Your task to perform on an android device: Open CNN.com Image 0: 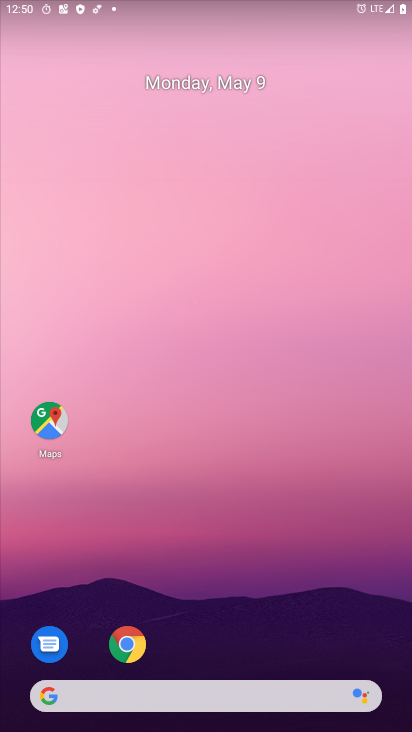
Step 0: drag from (244, 642) to (35, 65)
Your task to perform on an android device: Open CNN.com Image 1: 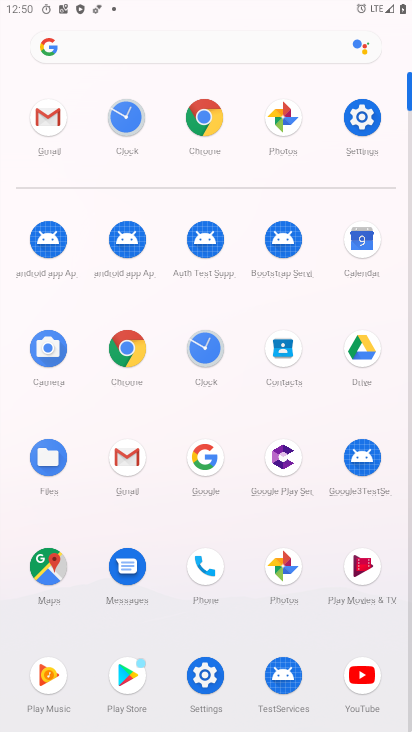
Step 1: click (130, 343)
Your task to perform on an android device: Open CNN.com Image 2: 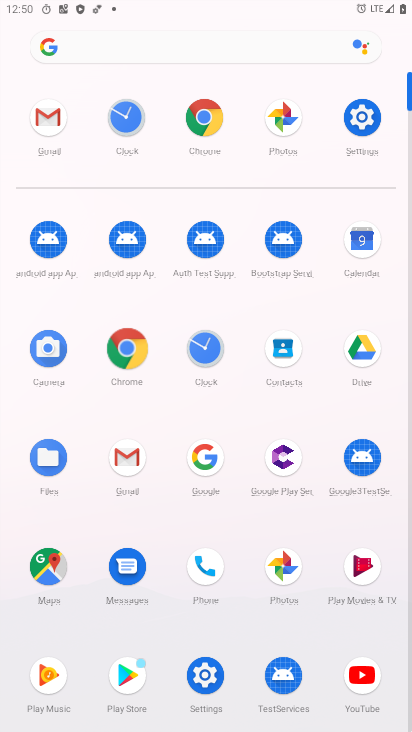
Step 2: click (127, 346)
Your task to perform on an android device: Open CNN.com Image 3: 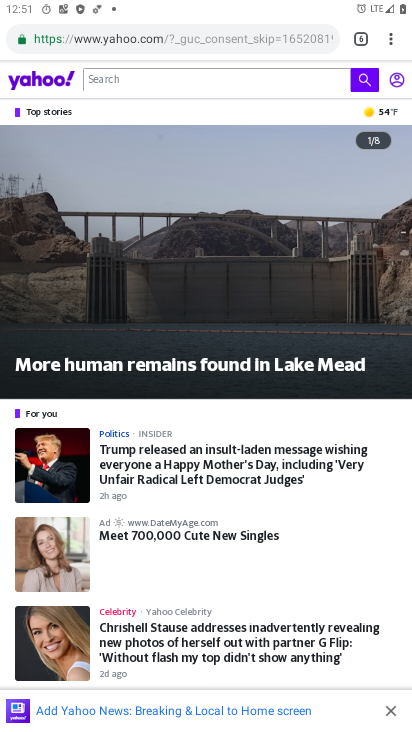
Step 3: drag from (388, 33) to (249, 77)
Your task to perform on an android device: Open CNN.com Image 4: 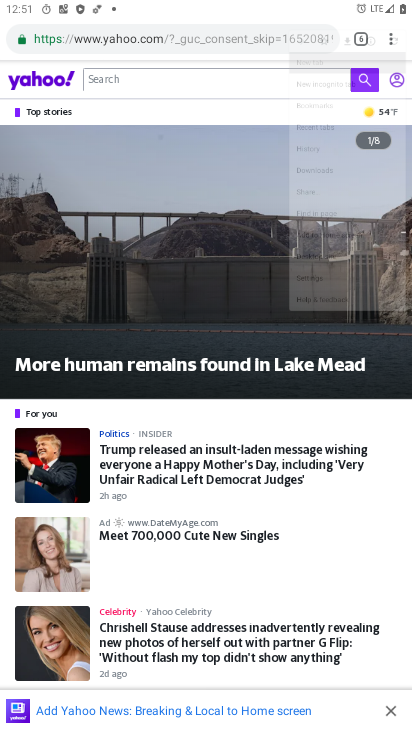
Step 4: click (250, 76)
Your task to perform on an android device: Open CNN.com Image 5: 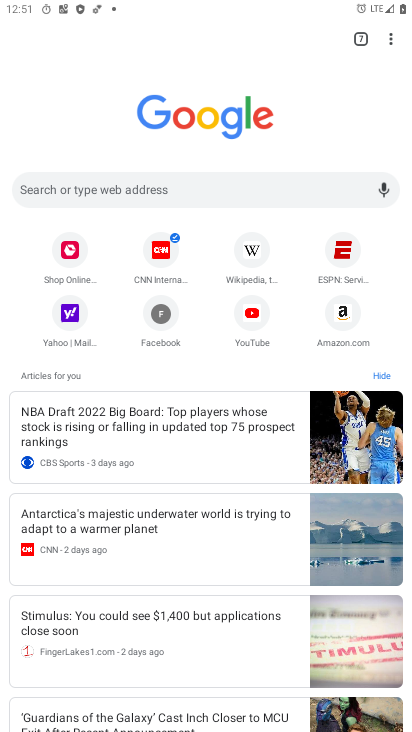
Step 5: click (149, 252)
Your task to perform on an android device: Open CNN.com Image 6: 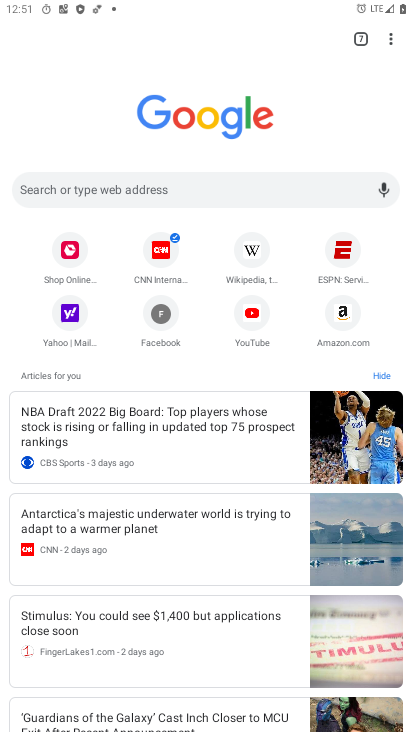
Step 6: click (149, 252)
Your task to perform on an android device: Open CNN.com Image 7: 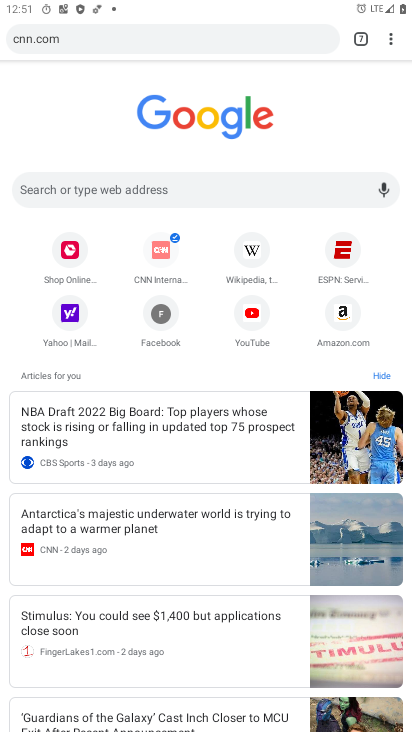
Step 7: click (149, 252)
Your task to perform on an android device: Open CNN.com Image 8: 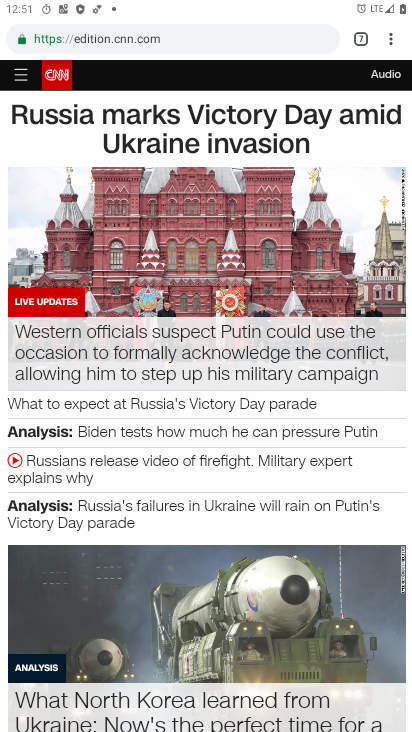
Step 8: task complete